Your task to perform on an android device: Go to settings Image 0: 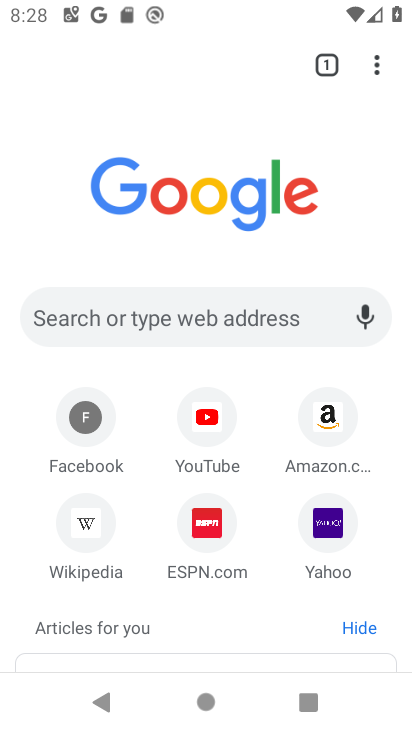
Step 0: press home button
Your task to perform on an android device: Go to settings Image 1: 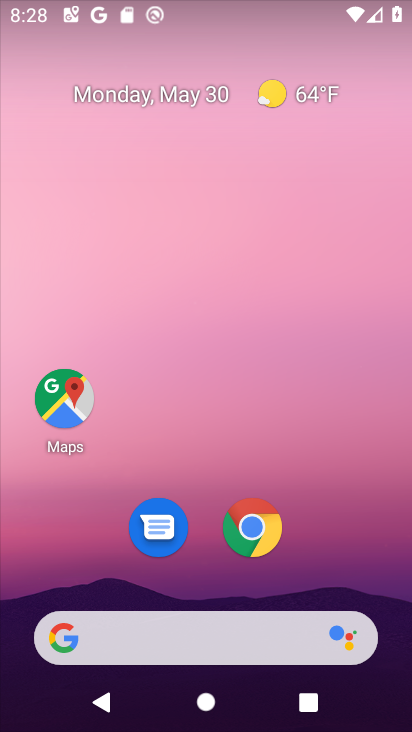
Step 1: drag from (283, 577) to (293, 264)
Your task to perform on an android device: Go to settings Image 2: 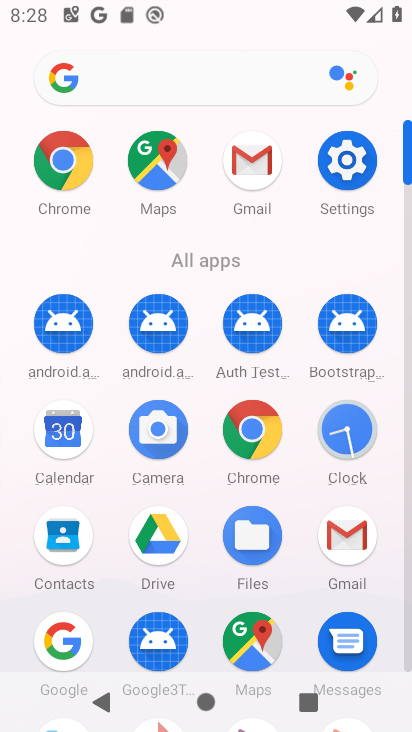
Step 2: click (362, 152)
Your task to perform on an android device: Go to settings Image 3: 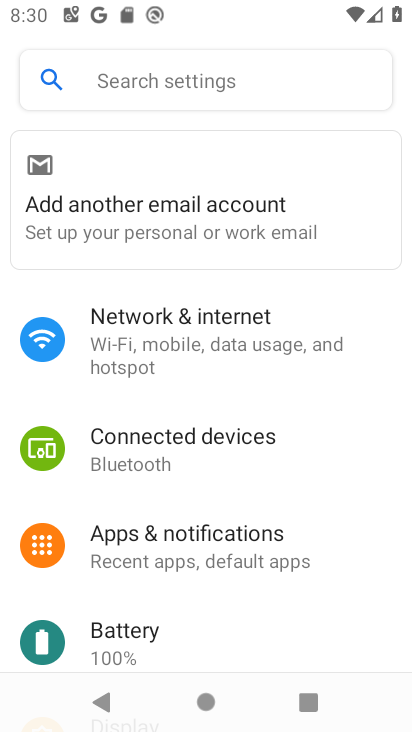
Step 3: task complete